Your task to perform on an android device: Open Google Chrome Image 0: 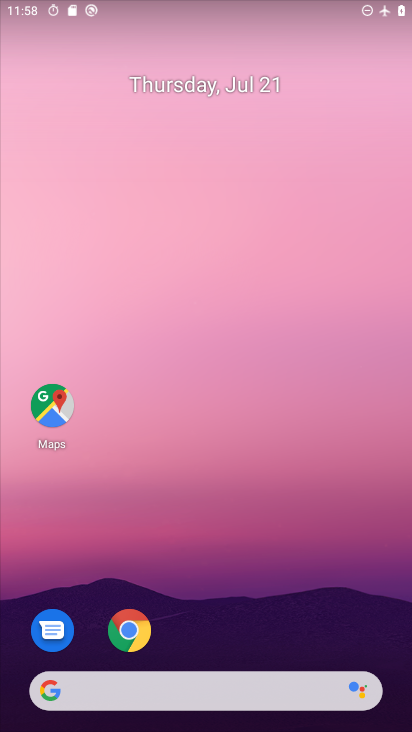
Step 0: press home button
Your task to perform on an android device: Open Google Chrome Image 1: 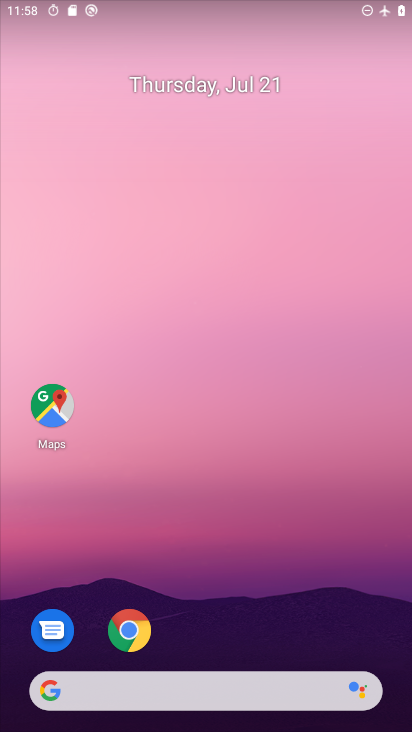
Step 1: click (128, 635)
Your task to perform on an android device: Open Google Chrome Image 2: 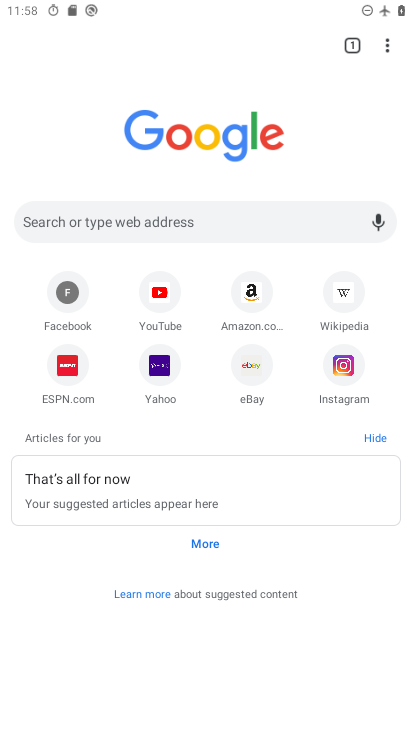
Step 2: task complete